Your task to perform on an android device: set an alarm Image 0: 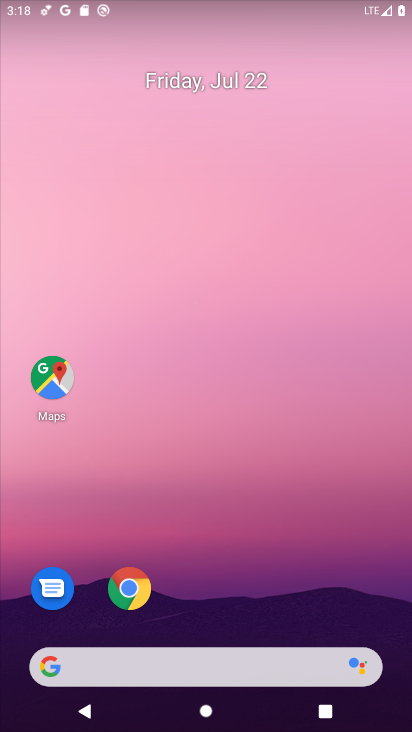
Step 0: drag from (285, 628) to (278, 8)
Your task to perform on an android device: set an alarm Image 1: 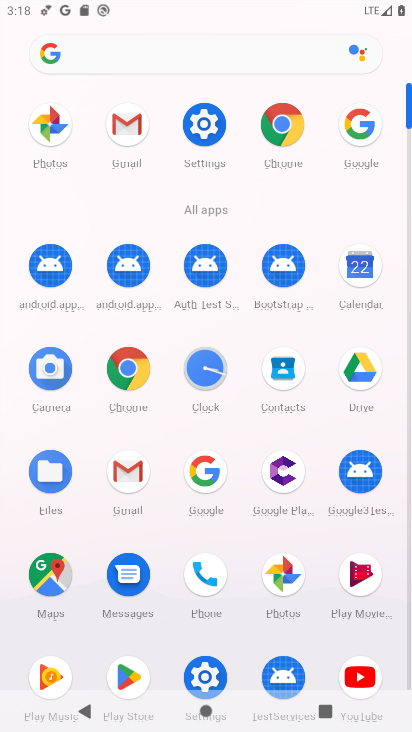
Step 1: click (208, 370)
Your task to perform on an android device: set an alarm Image 2: 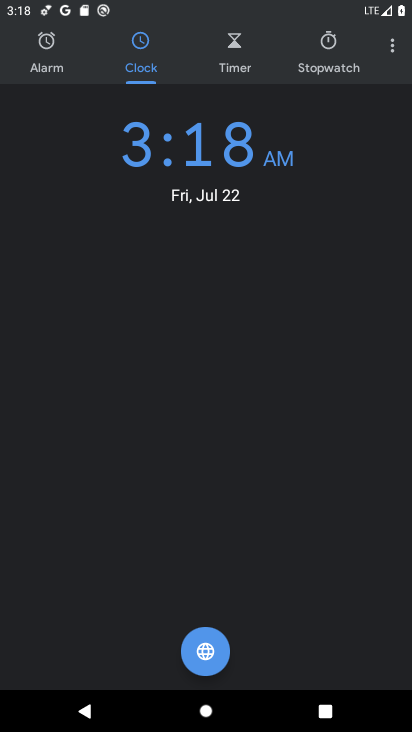
Step 2: click (50, 45)
Your task to perform on an android device: set an alarm Image 3: 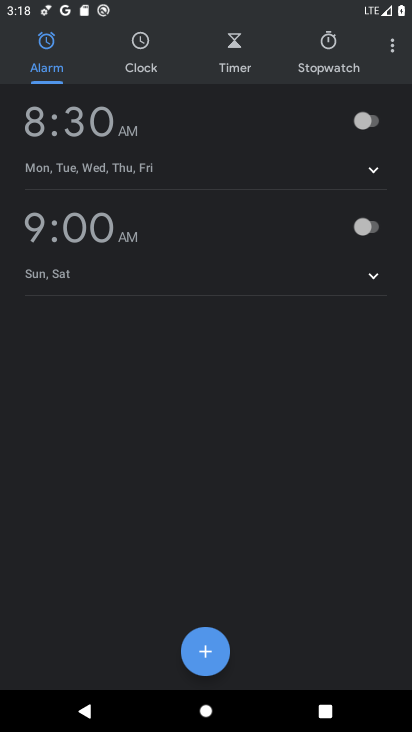
Step 3: click (214, 661)
Your task to perform on an android device: set an alarm Image 4: 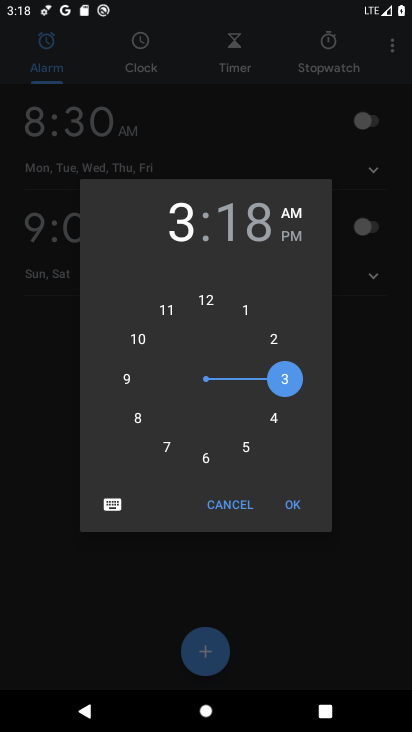
Step 4: click (213, 461)
Your task to perform on an android device: set an alarm Image 5: 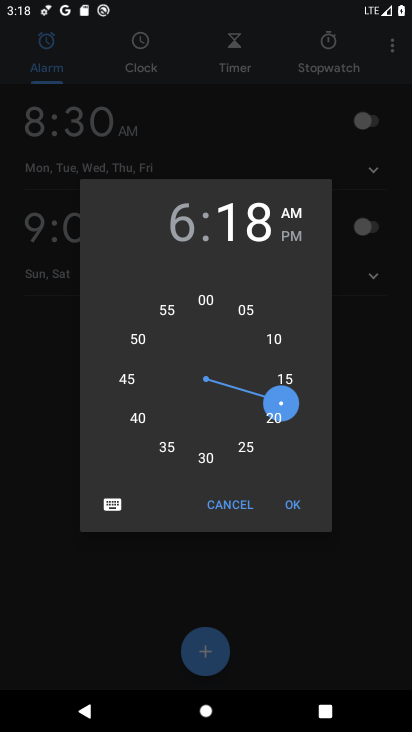
Step 5: click (213, 461)
Your task to perform on an android device: set an alarm Image 6: 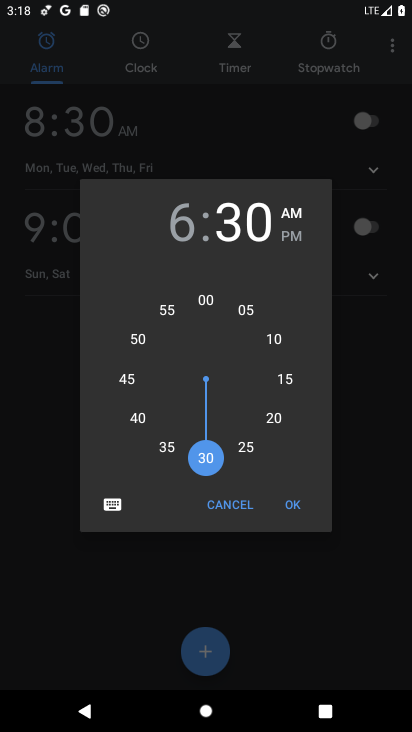
Step 6: click (288, 501)
Your task to perform on an android device: set an alarm Image 7: 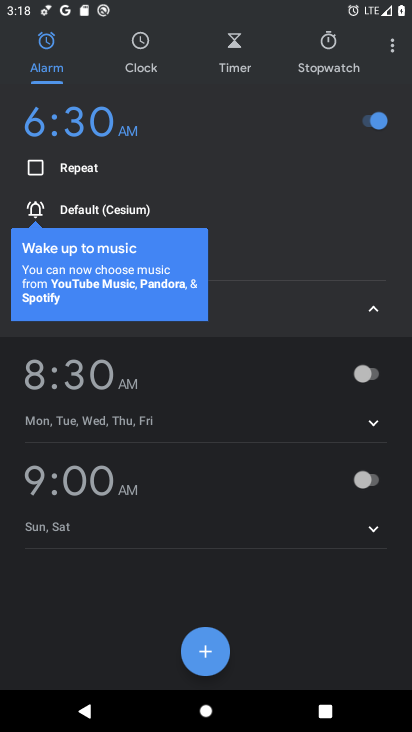
Step 7: task complete